Your task to perform on an android device: toggle wifi Image 0: 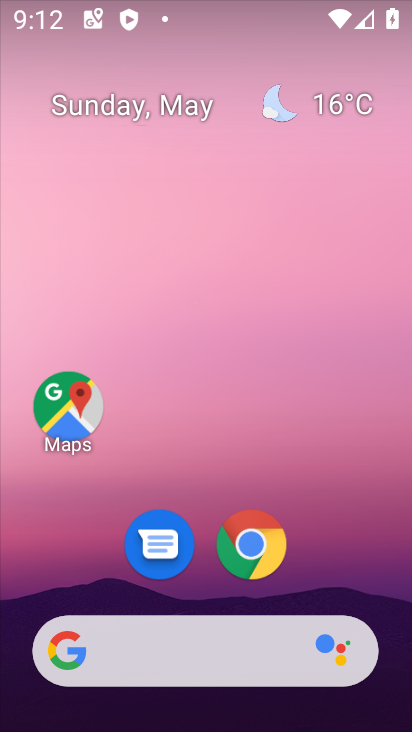
Step 0: drag from (306, 582) to (158, 107)
Your task to perform on an android device: toggle wifi Image 1: 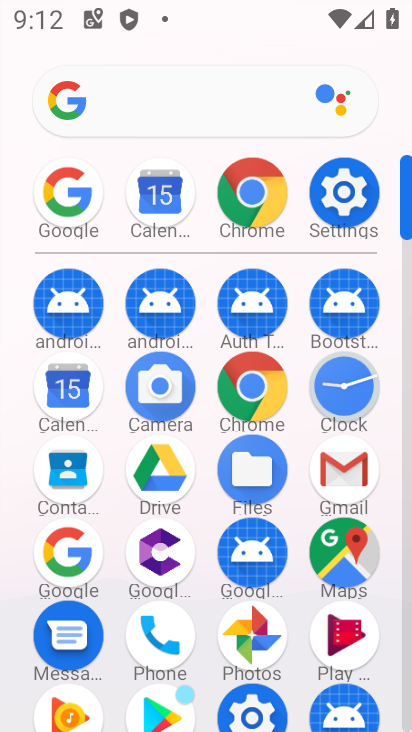
Step 1: click (338, 191)
Your task to perform on an android device: toggle wifi Image 2: 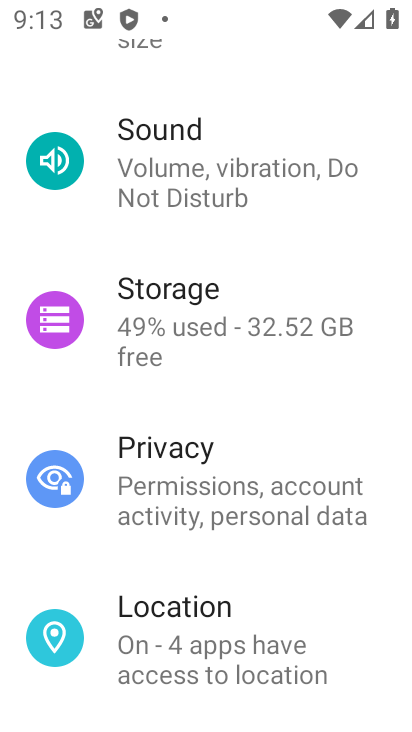
Step 2: drag from (255, 200) to (255, 688)
Your task to perform on an android device: toggle wifi Image 3: 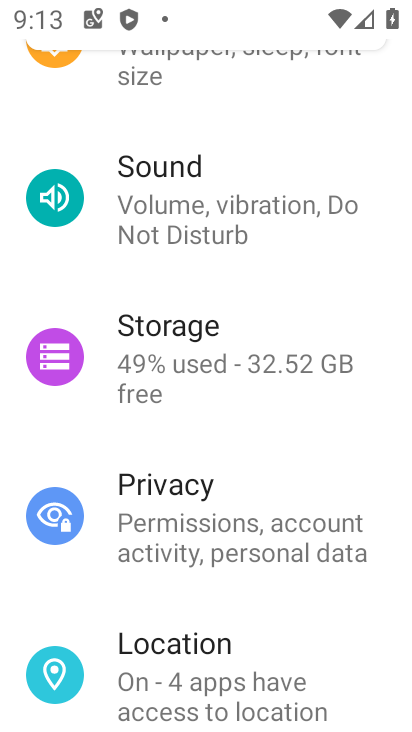
Step 3: drag from (180, 219) to (209, 620)
Your task to perform on an android device: toggle wifi Image 4: 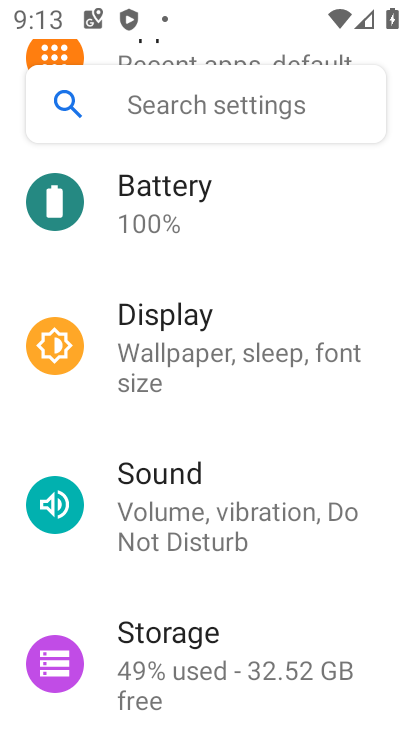
Step 4: drag from (235, 235) to (246, 621)
Your task to perform on an android device: toggle wifi Image 5: 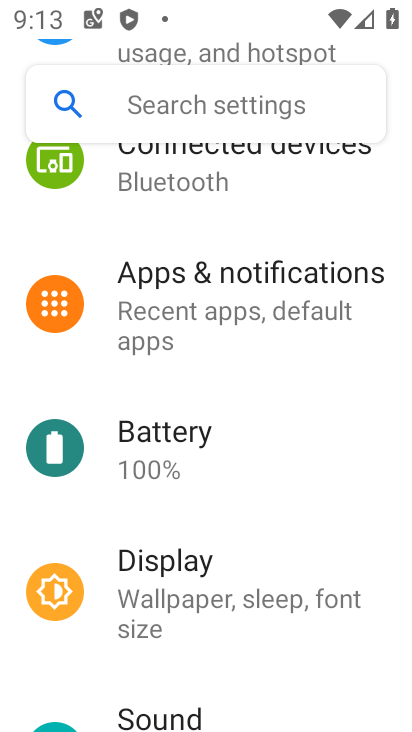
Step 5: drag from (192, 215) to (235, 632)
Your task to perform on an android device: toggle wifi Image 6: 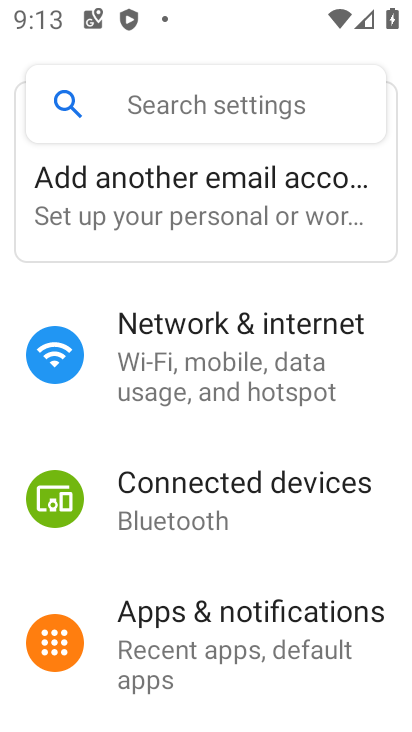
Step 6: click (199, 366)
Your task to perform on an android device: toggle wifi Image 7: 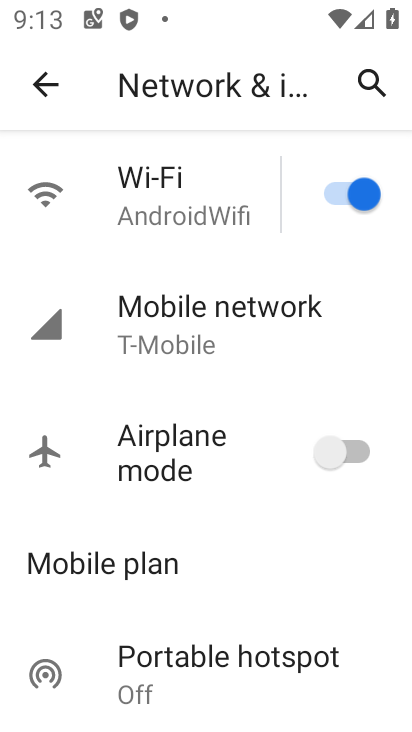
Step 7: click (169, 341)
Your task to perform on an android device: toggle wifi Image 8: 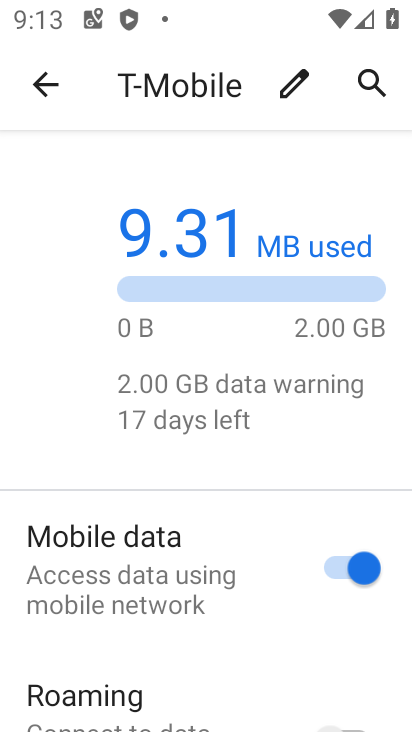
Step 8: click (26, 82)
Your task to perform on an android device: toggle wifi Image 9: 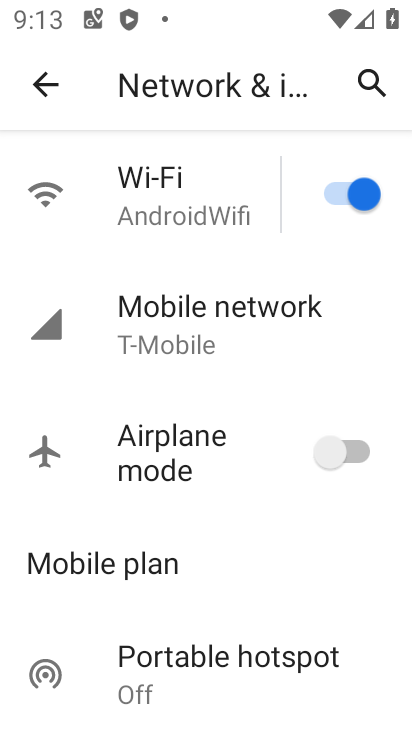
Step 9: click (333, 190)
Your task to perform on an android device: toggle wifi Image 10: 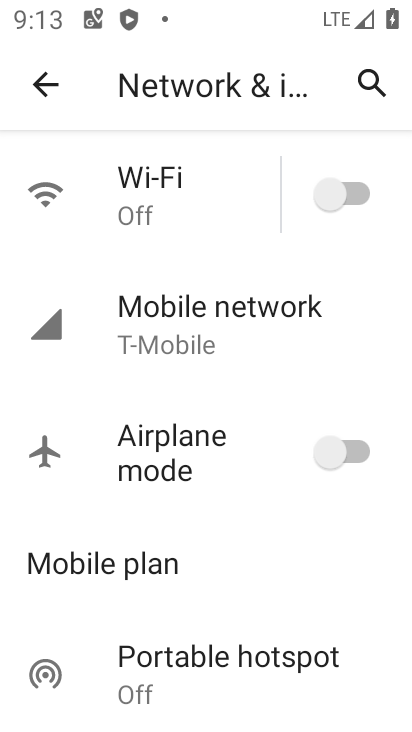
Step 10: task complete